Your task to perform on an android device: Open maps Image 0: 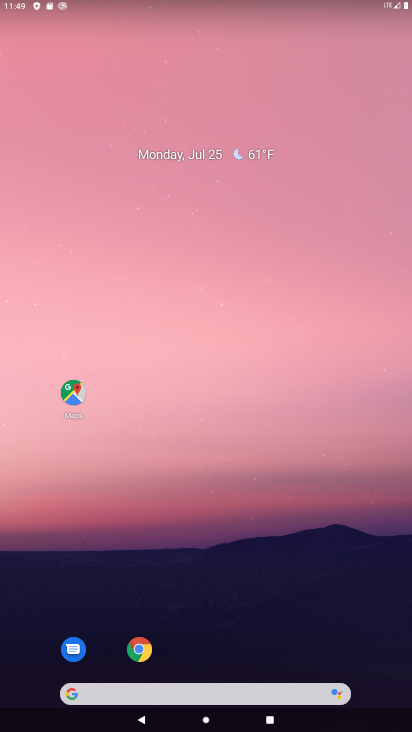
Step 0: drag from (204, 667) to (196, 40)
Your task to perform on an android device: Open maps Image 1: 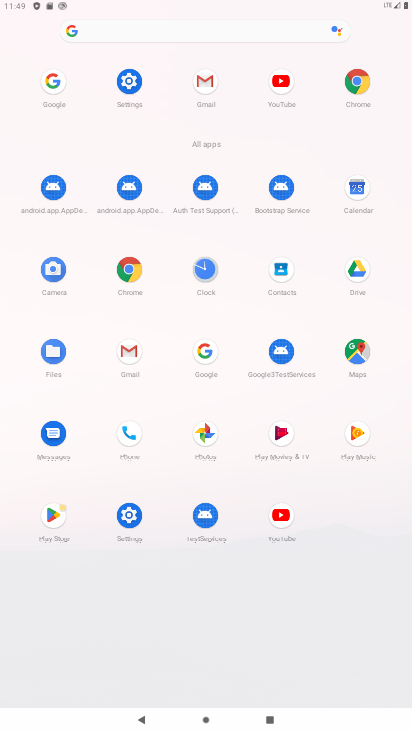
Step 1: click (360, 347)
Your task to perform on an android device: Open maps Image 2: 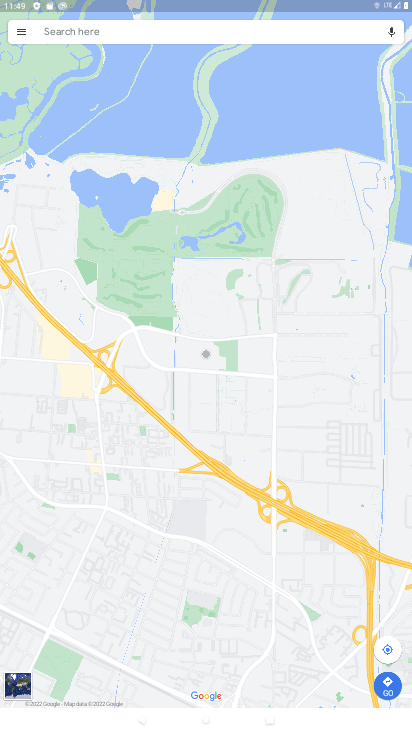
Step 2: task complete